Your task to perform on an android device: Go to ESPN.com Image 0: 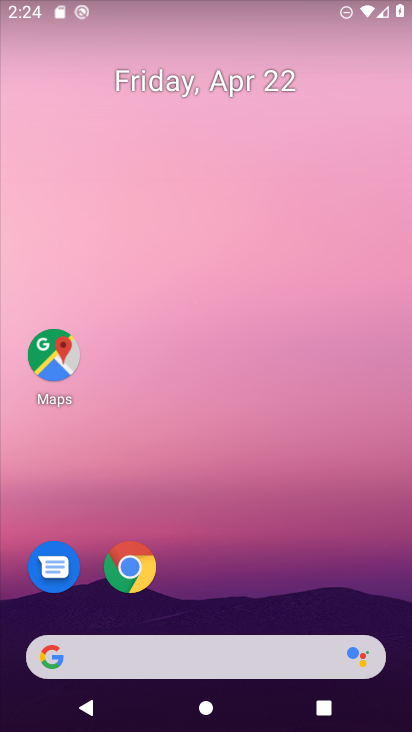
Step 0: click (151, 559)
Your task to perform on an android device: Go to ESPN.com Image 1: 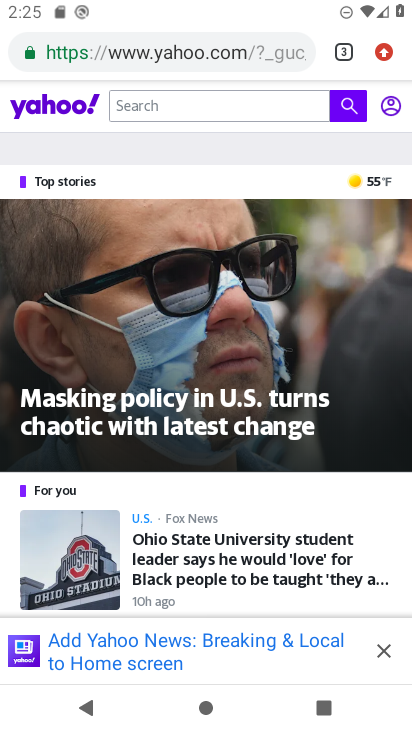
Step 1: click (340, 57)
Your task to perform on an android device: Go to ESPN.com Image 2: 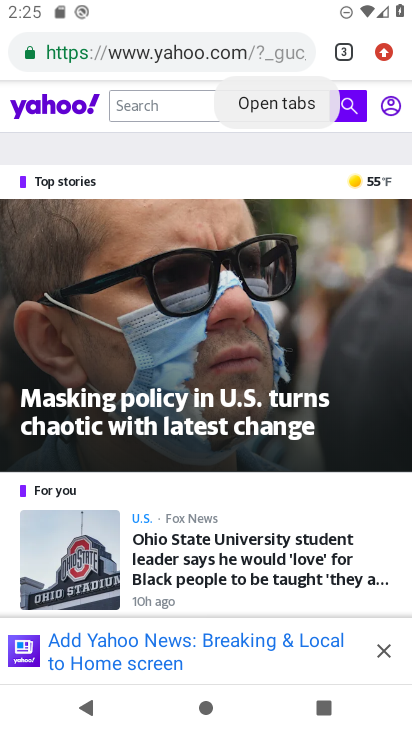
Step 2: click (352, 48)
Your task to perform on an android device: Go to ESPN.com Image 3: 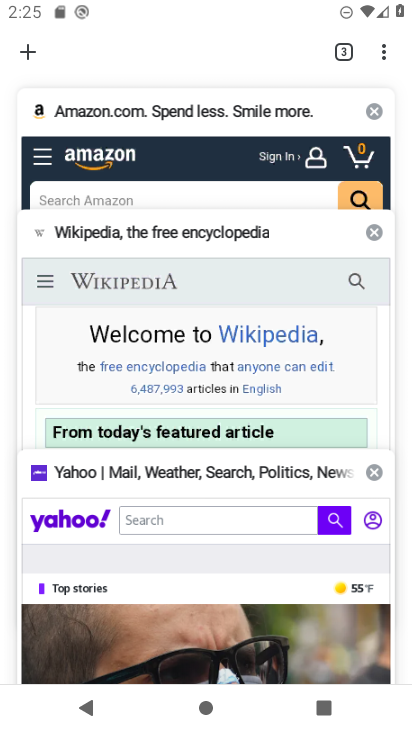
Step 3: click (21, 60)
Your task to perform on an android device: Go to ESPN.com Image 4: 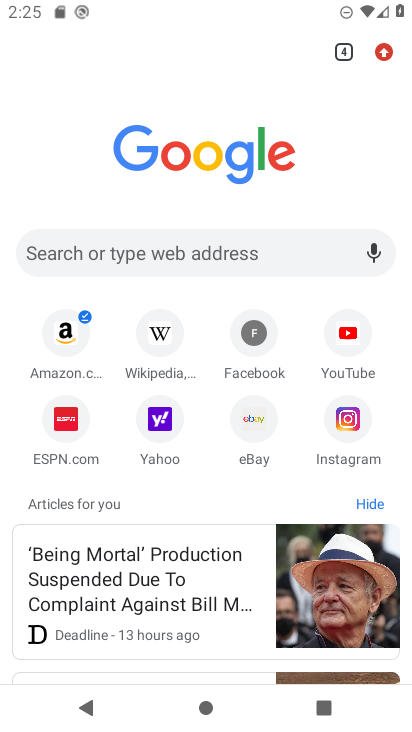
Step 4: click (63, 412)
Your task to perform on an android device: Go to ESPN.com Image 5: 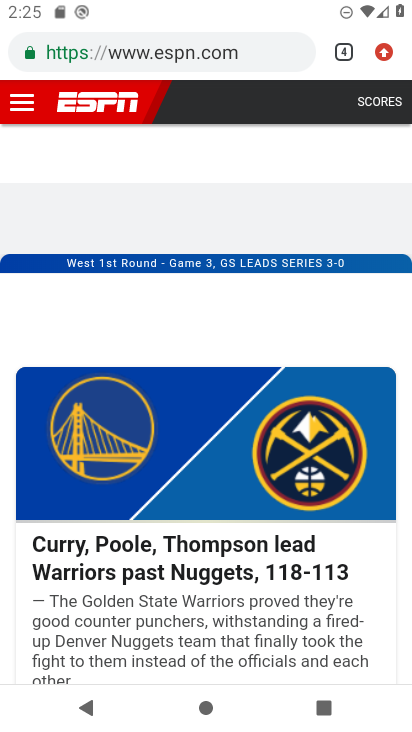
Step 5: task complete